Your task to perform on an android device: Open Reddit.com Image 0: 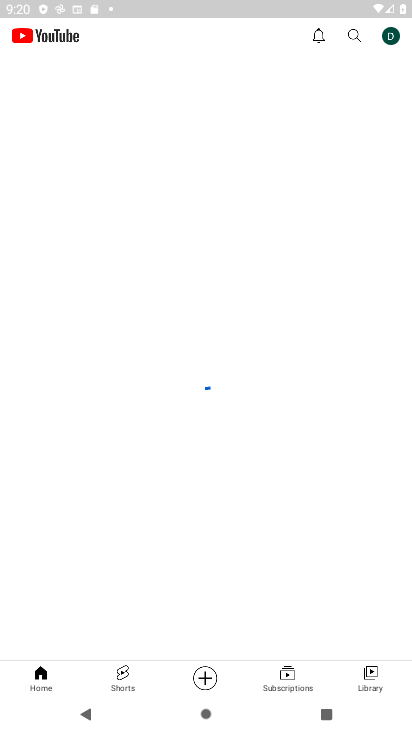
Step 0: drag from (325, 611) to (202, 133)
Your task to perform on an android device: Open Reddit.com Image 1: 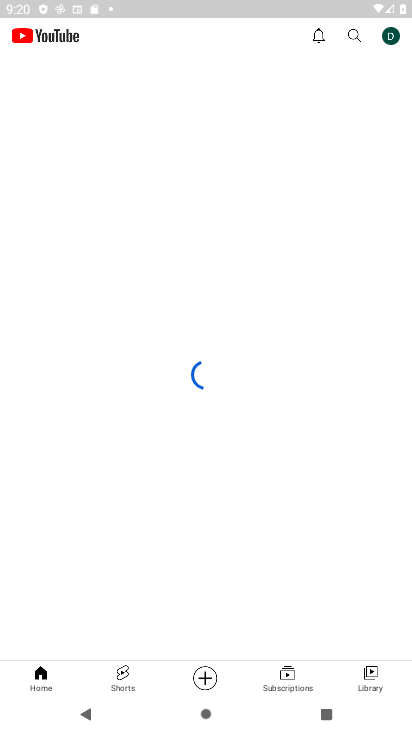
Step 1: press home button
Your task to perform on an android device: Open Reddit.com Image 2: 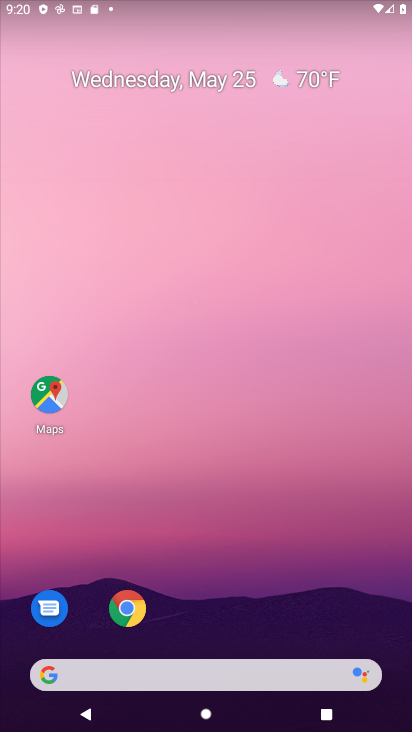
Step 2: click (123, 611)
Your task to perform on an android device: Open Reddit.com Image 3: 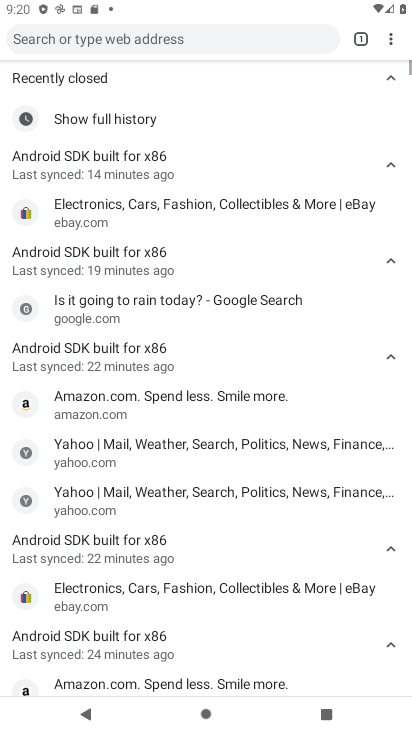
Step 3: click (157, 39)
Your task to perform on an android device: Open Reddit.com Image 4: 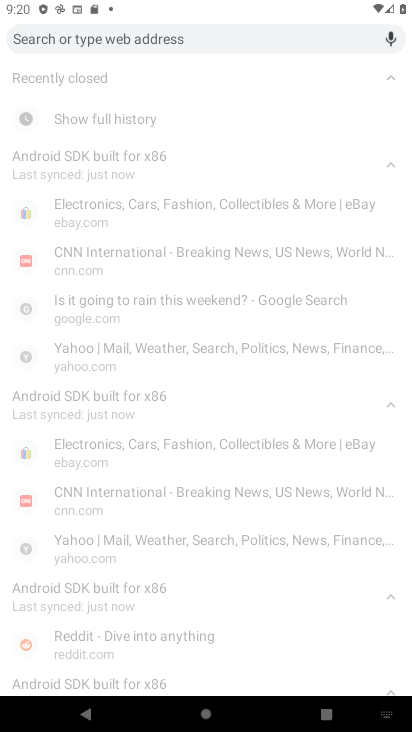
Step 4: type "Reddit.com"
Your task to perform on an android device: Open Reddit.com Image 5: 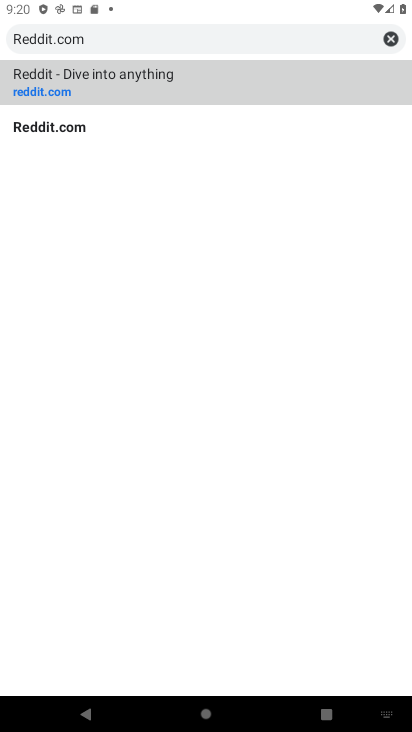
Step 5: click (119, 98)
Your task to perform on an android device: Open Reddit.com Image 6: 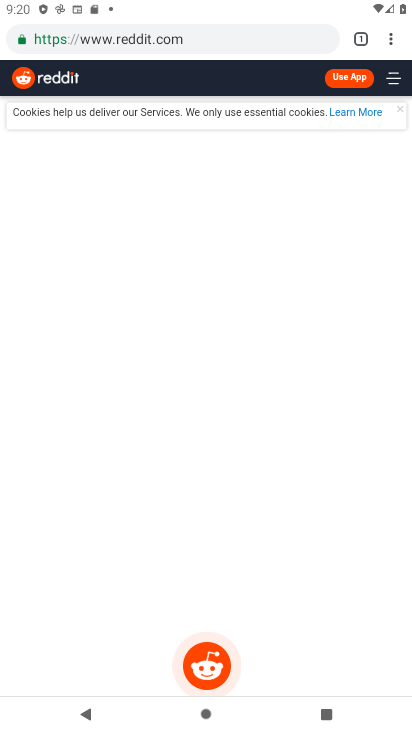
Step 6: task complete